Your task to perform on an android device: find photos in the google photos app Image 0: 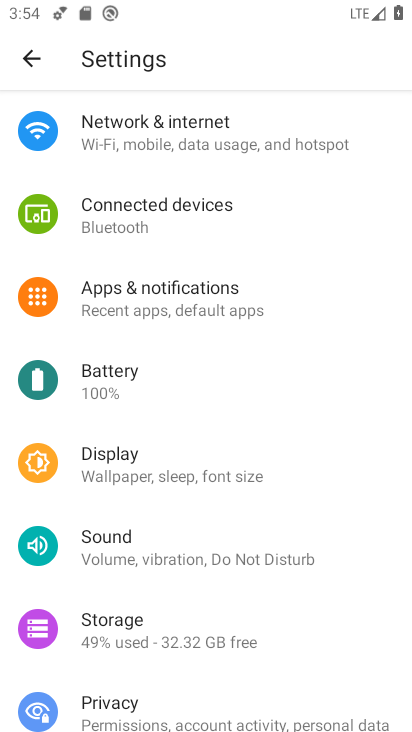
Step 0: press home button
Your task to perform on an android device: find photos in the google photos app Image 1: 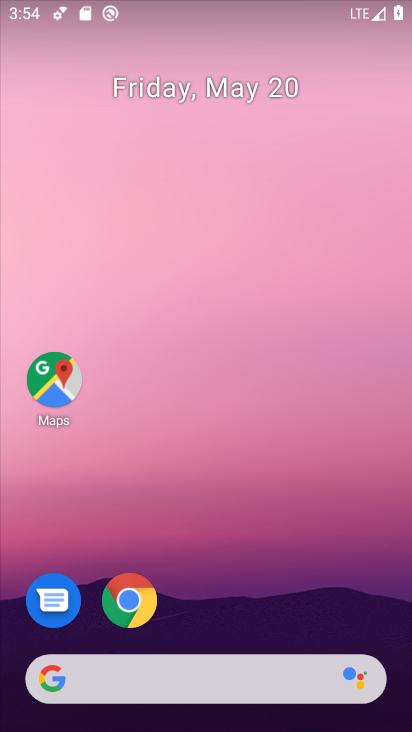
Step 1: drag from (363, 629) to (368, 351)
Your task to perform on an android device: find photos in the google photos app Image 2: 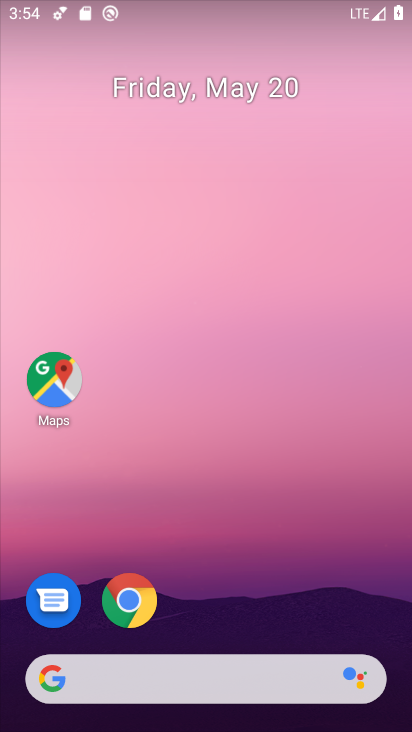
Step 2: drag from (369, 626) to (369, 205)
Your task to perform on an android device: find photos in the google photos app Image 3: 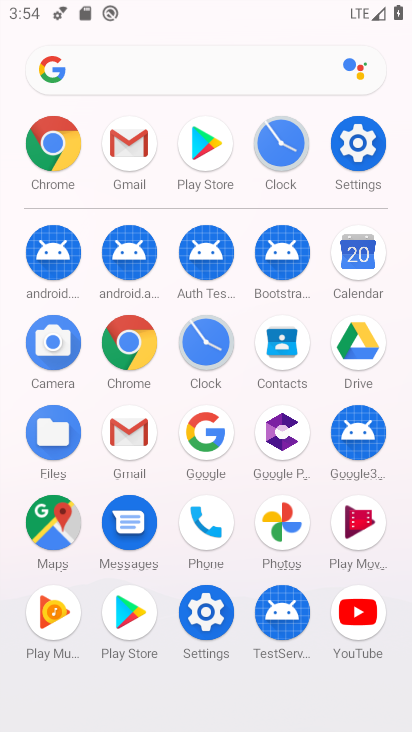
Step 3: click (306, 534)
Your task to perform on an android device: find photos in the google photos app Image 4: 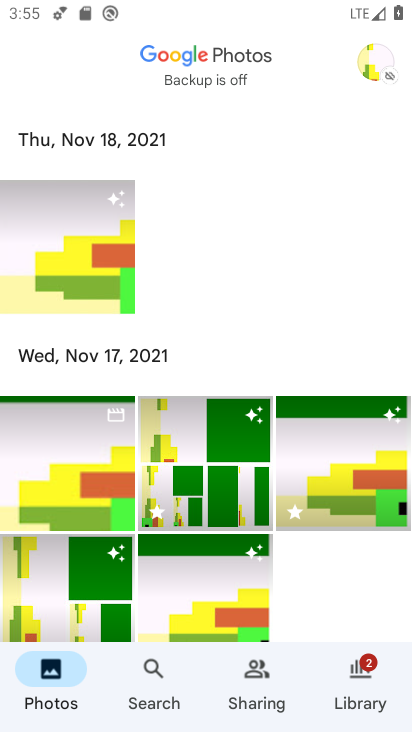
Step 4: drag from (206, 561) to (201, 379)
Your task to perform on an android device: find photos in the google photos app Image 5: 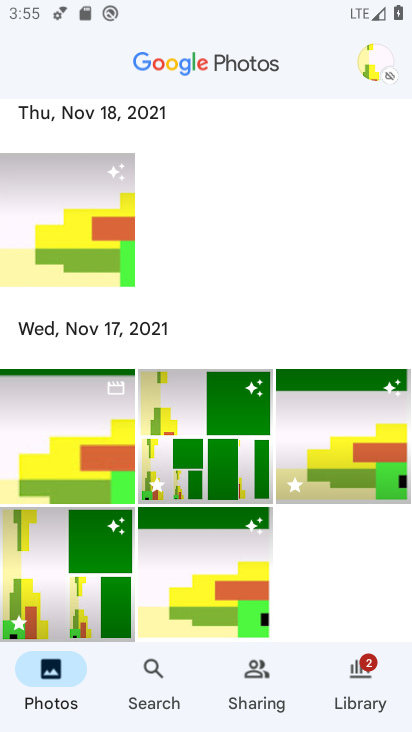
Step 5: click (47, 436)
Your task to perform on an android device: find photos in the google photos app Image 6: 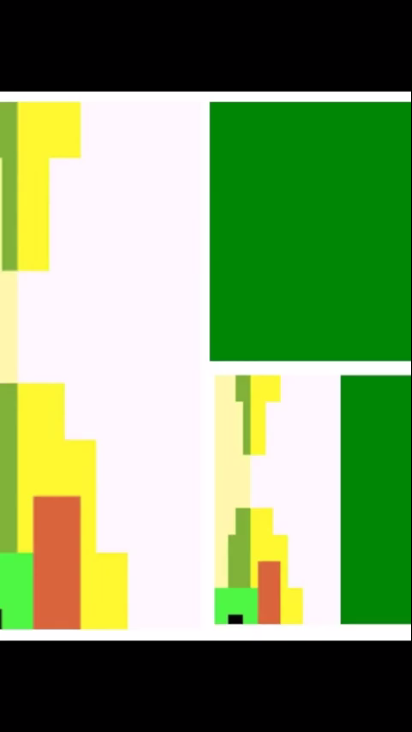
Step 6: task complete